Your task to perform on an android device: Go to Reddit.com Image 0: 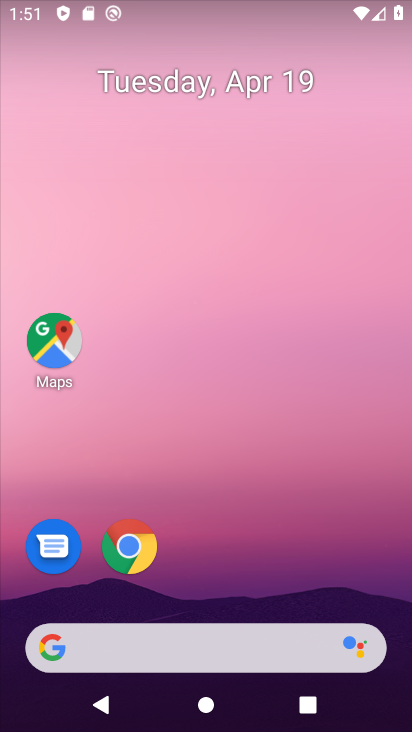
Step 0: click (113, 563)
Your task to perform on an android device: Go to Reddit.com Image 1: 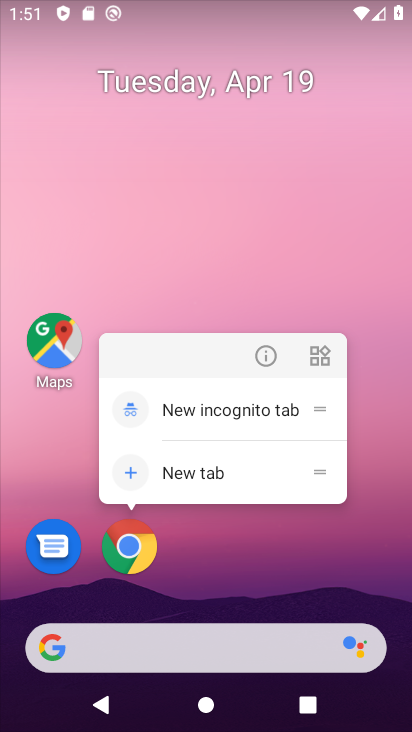
Step 1: click (114, 563)
Your task to perform on an android device: Go to Reddit.com Image 2: 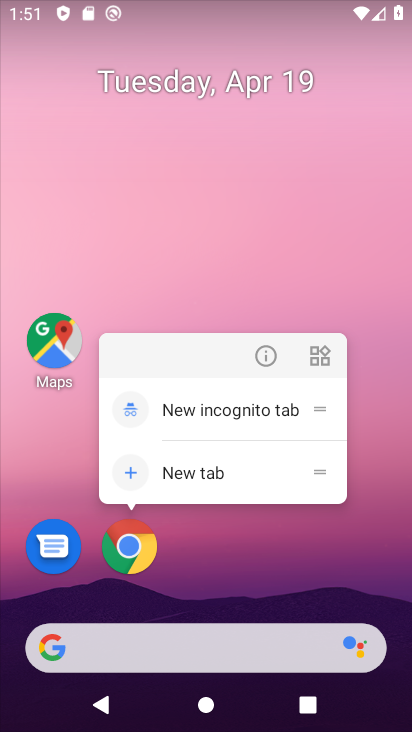
Step 2: click (114, 563)
Your task to perform on an android device: Go to Reddit.com Image 3: 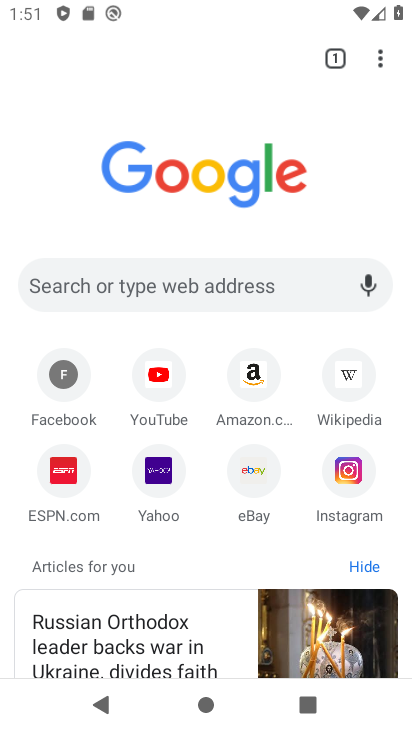
Step 3: click (157, 274)
Your task to perform on an android device: Go to Reddit.com Image 4: 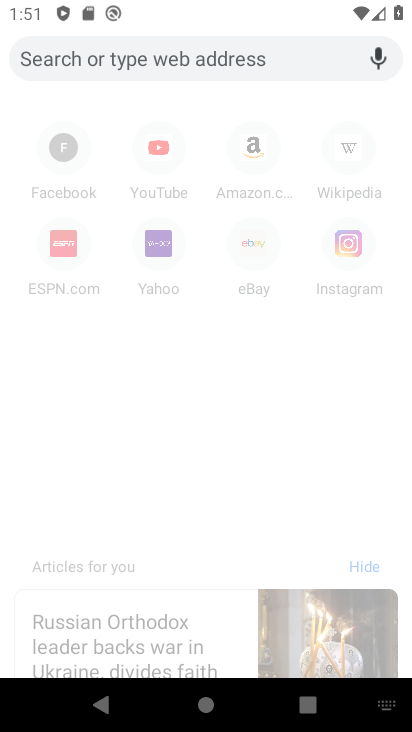
Step 4: type "reddit.com"
Your task to perform on an android device: Go to Reddit.com Image 5: 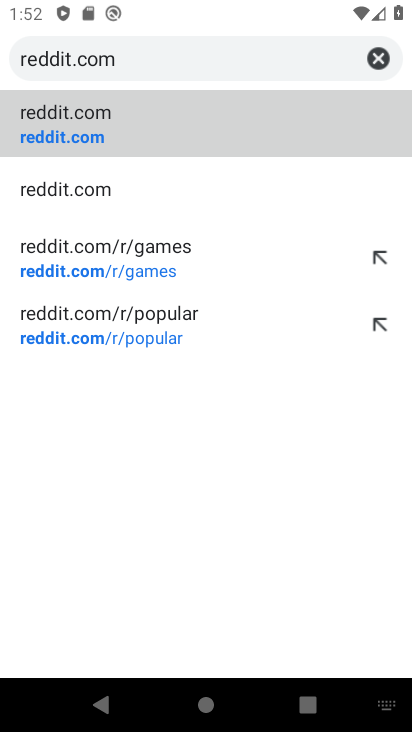
Step 5: click (98, 124)
Your task to perform on an android device: Go to Reddit.com Image 6: 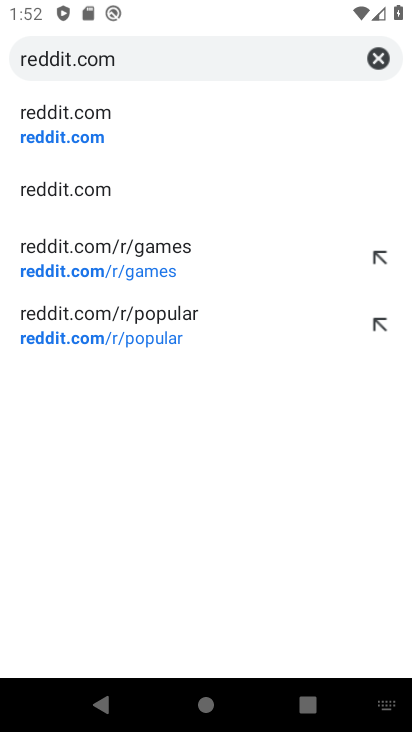
Step 6: click (160, 131)
Your task to perform on an android device: Go to Reddit.com Image 7: 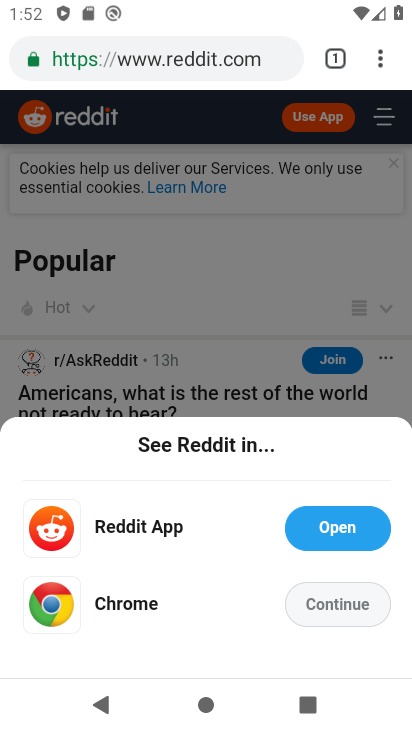
Step 7: task complete